Your task to perform on an android device: turn vacation reply on in the gmail app Image 0: 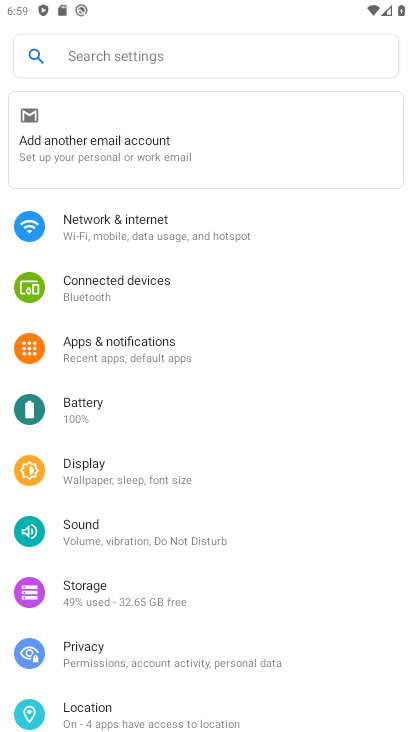
Step 0: press home button
Your task to perform on an android device: turn vacation reply on in the gmail app Image 1: 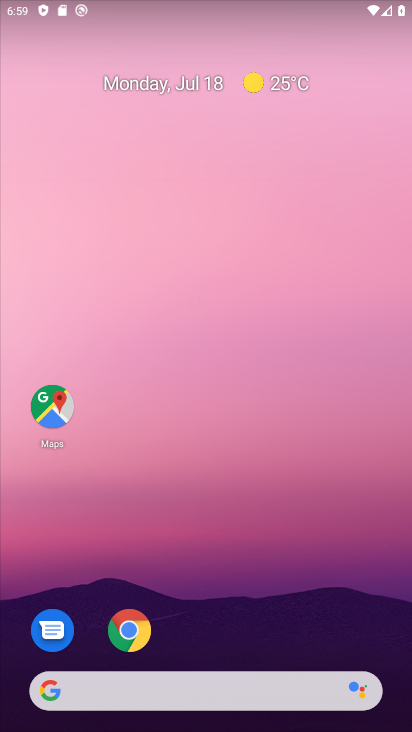
Step 1: drag from (282, 637) to (296, 61)
Your task to perform on an android device: turn vacation reply on in the gmail app Image 2: 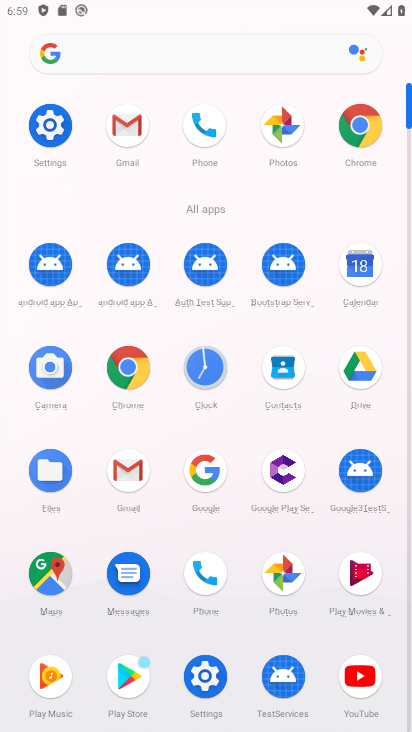
Step 2: click (142, 476)
Your task to perform on an android device: turn vacation reply on in the gmail app Image 3: 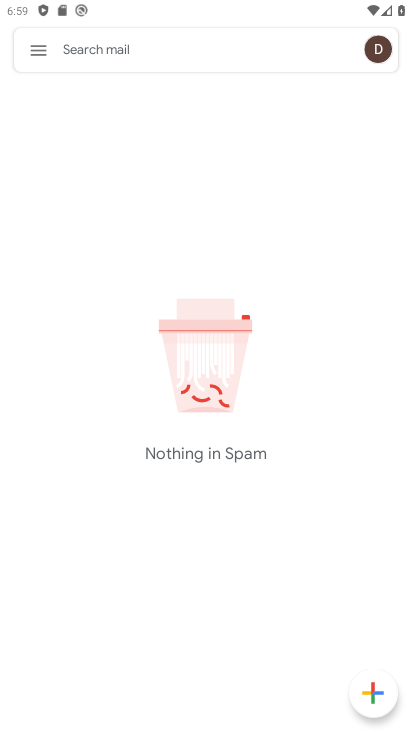
Step 3: click (26, 46)
Your task to perform on an android device: turn vacation reply on in the gmail app Image 4: 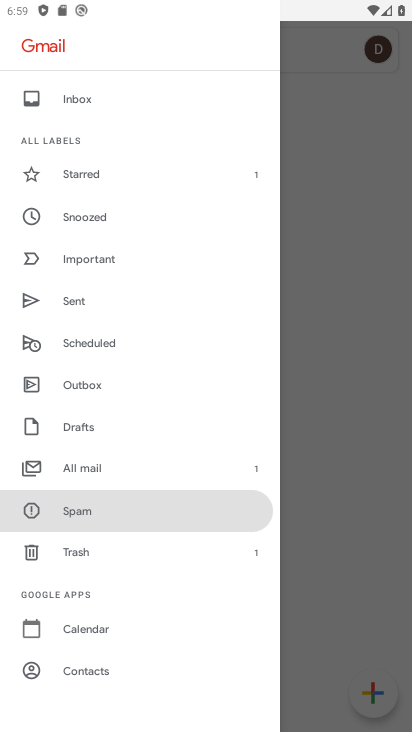
Step 4: drag from (80, 645) to (152, 516)
Your task to perform on an android device: turn vacation reply on in the gmail app Image 5: 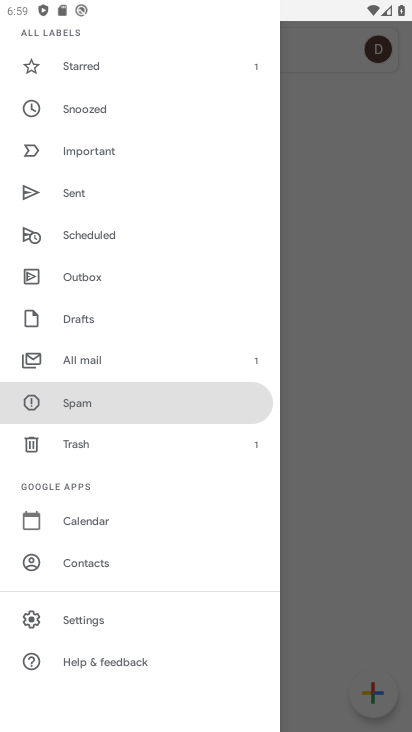
Step 5: click (116, 625)
Your task to perform on an android device: turn vacation reply on in the gmail app Image 6: 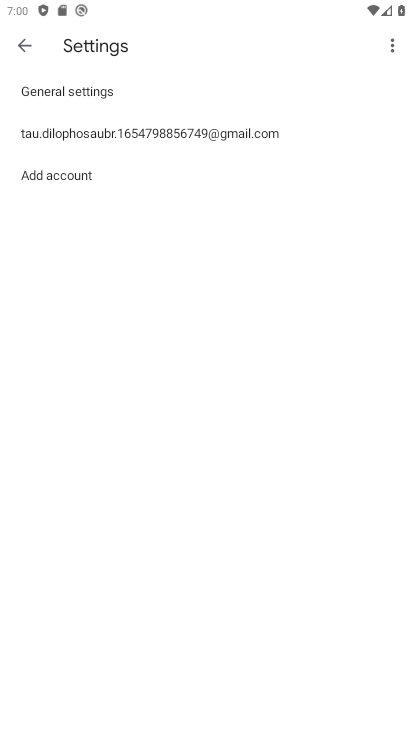
Step 6: click (95, 129)
Your task to perform on an android device: turn vacation reply on in the gmail app Image 7: 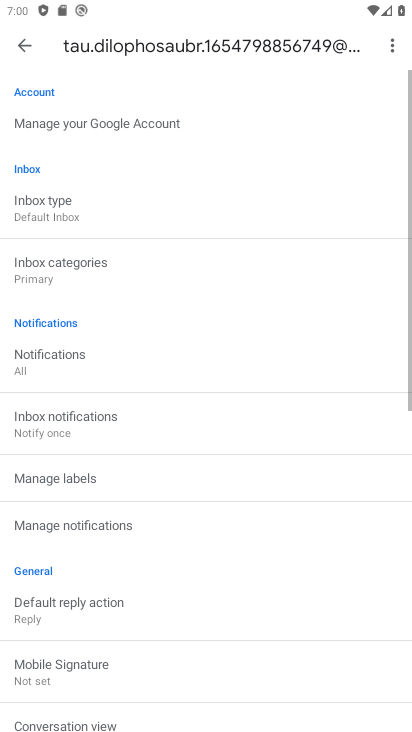
Step 7: drag from (143, 645) to (227, 219)
Your task to perform on an android device: turn vacation reply on in the gmail app Image 8: 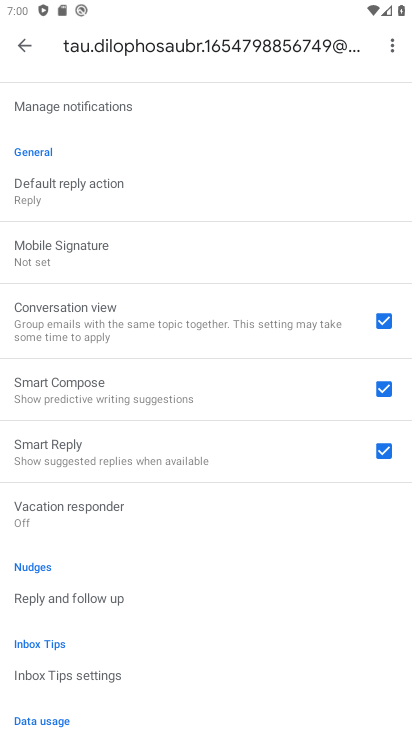
Step 8: click (377, 445)
Your task to perform on an android device: turn vacation reply on in the gmail app Image 9: 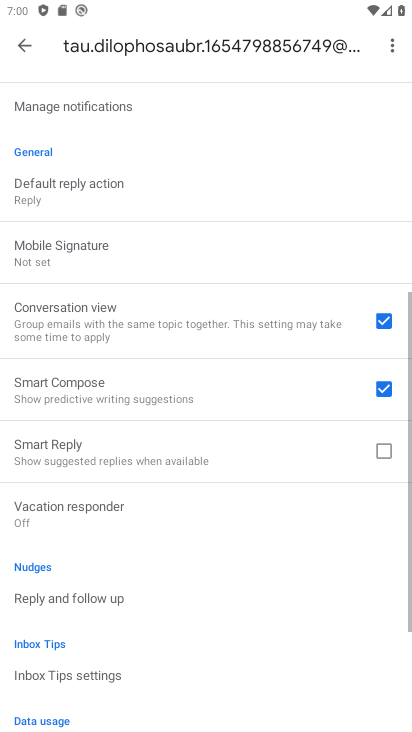
Step 9: click (377, 445)
Your task to perform on an android device: turn vacation reply on in the gmail app Image 10: 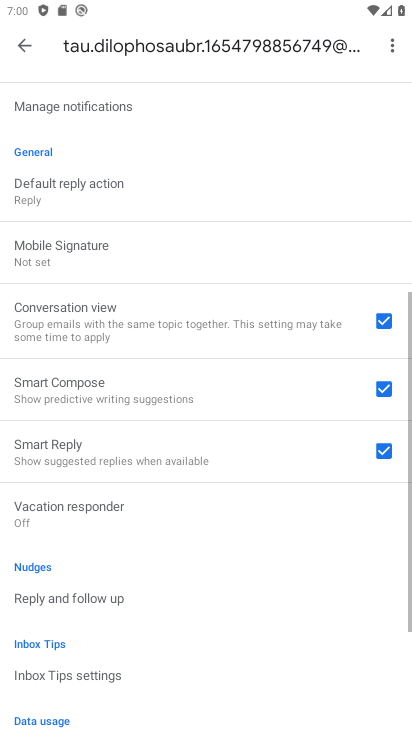
Step 10: click (136, 529)
Your task to perform on an android device: turn vacation reply on in the gmail app Image 11: 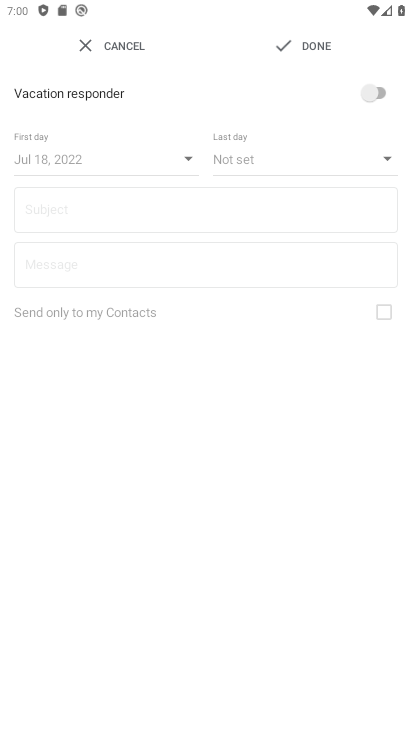
Step 11: click (379, 93)
Your task to perform on an android device: turn vacation reply on in the gmail app Image 12: 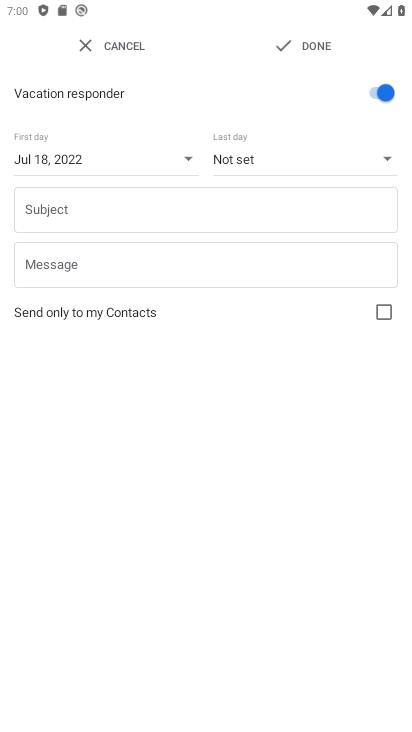
Step 12: press home button
Your task to perform on an android device: turn vacation reply on in the gmail app Image 13: 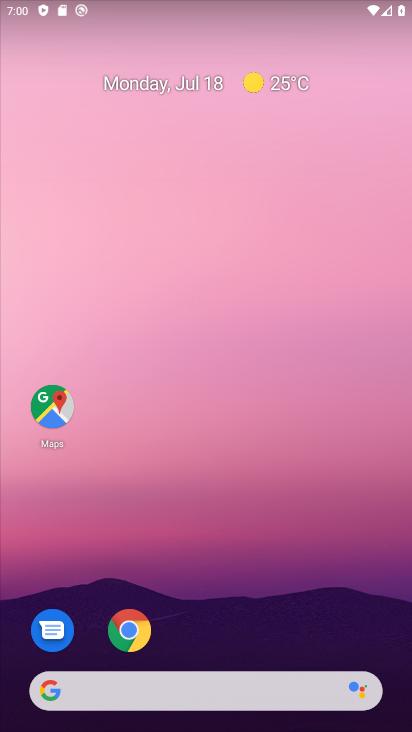
Step 13: drag from (207, 698) to (171, 189)
Your task to perform on an android device: turn vacation reply on in the gmail app Image 14: 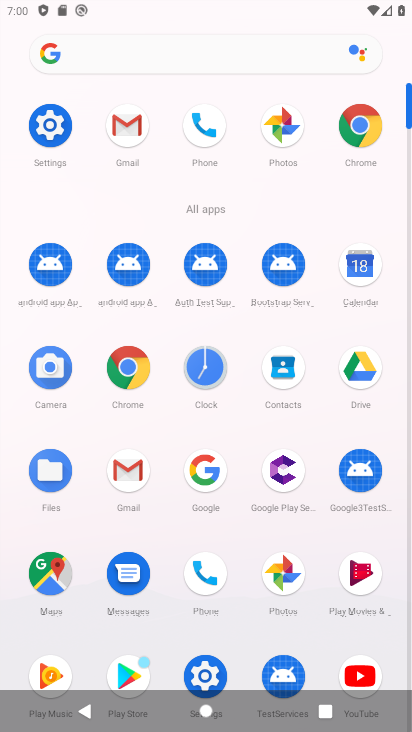
Step 14: click (115, 492)
Your task to perform on an android device: turn vacation reply on in the gmail app Image 15: 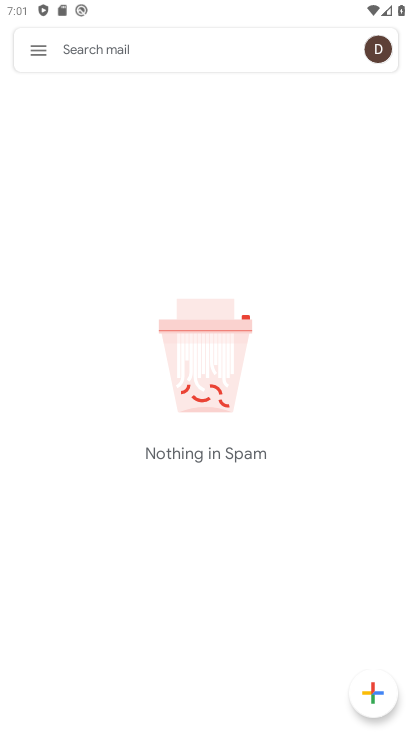
Step 15: task complete